Your task to perform on an android device: empty trash in the gmail app Image 0: 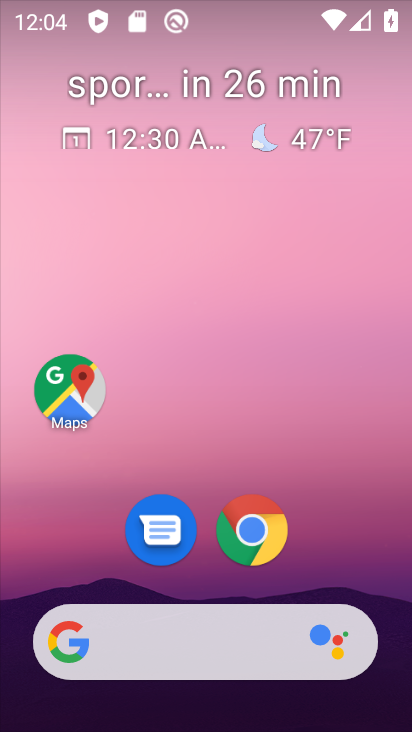
Step 0: drag from (351, 553) to (359, 161)
Your task to perform on an android device: empty trash in the gmail app Image 1: 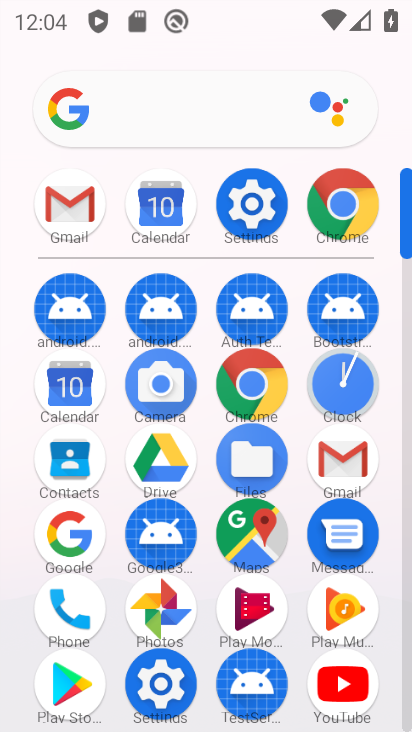
Step 1: click (347, 475)
Your task to perform on an android device: empty trash in the gmail app Image 2: 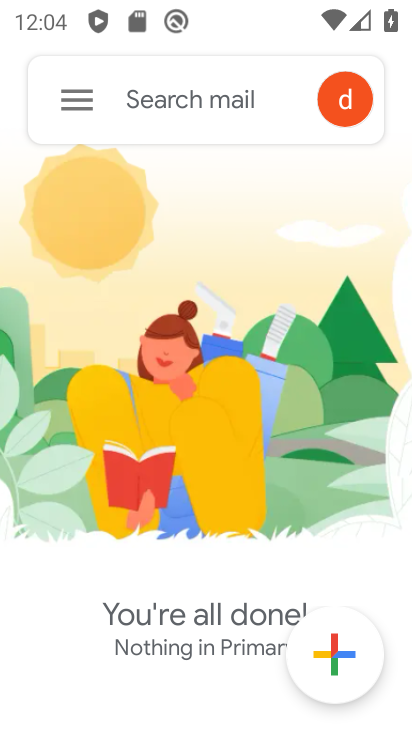
Step 2: click (70, 111)
Your task to perform on an android device: empty trash in the gmail app Image 3: 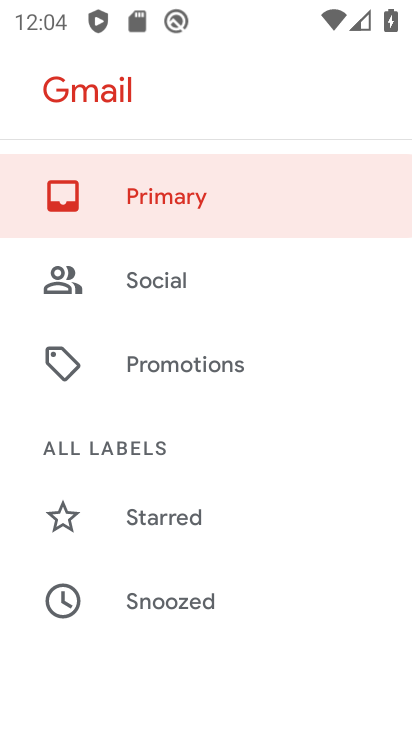
Step 3: drag from (240, 535) to (258, 236)
Your task to perform on an android device: empty trash in the gmail app Image 4: 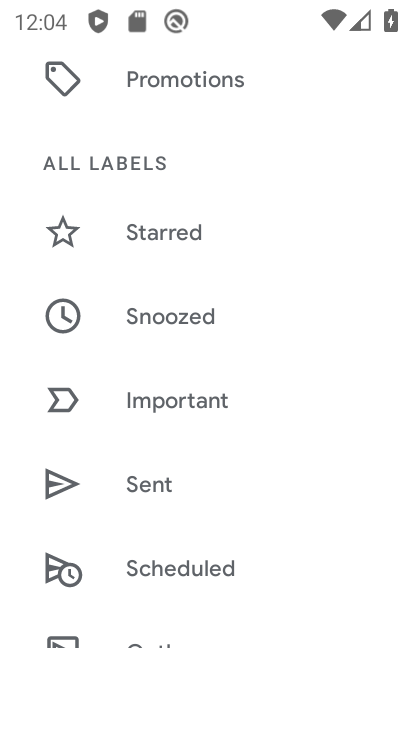
Step 4: drag from (219, 540) to (258, 262)
Your task to perform on an android device: empty trash in the gmail app Image 5: 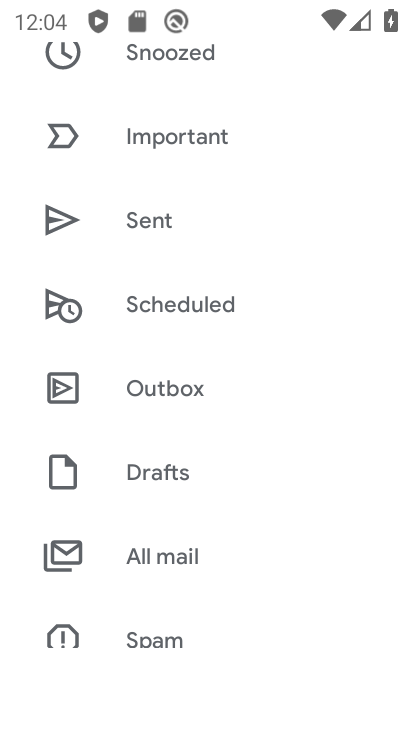
Step 5: drag from (269, 551) to (285, 293)
Your task to perform on an android device: empty trash in the gmail app Image 6: 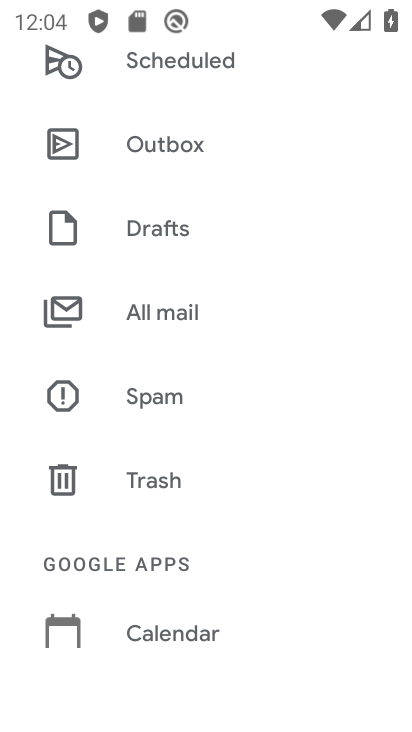
Step 6: click (131, 474)
Your task to perform on an android device: empty trash in the gmail app Image 7: 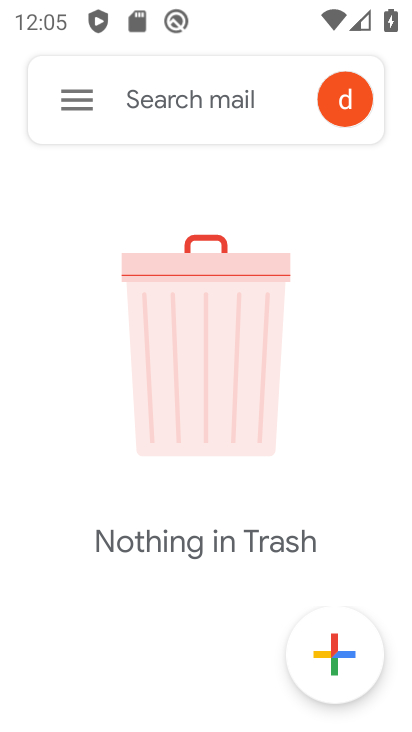
Step 7: task complete